Your task to perform on an android device: set default search engine in the chrome app Image 0: 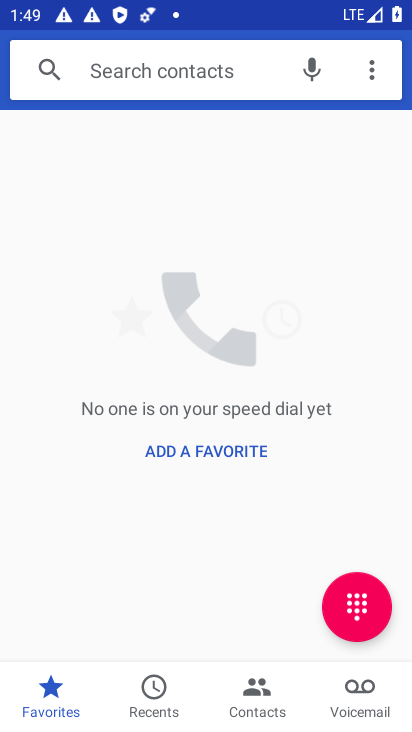
Step 0: press back button
Your task to perform on an android device: set default search engine in the chrome app Image 1: 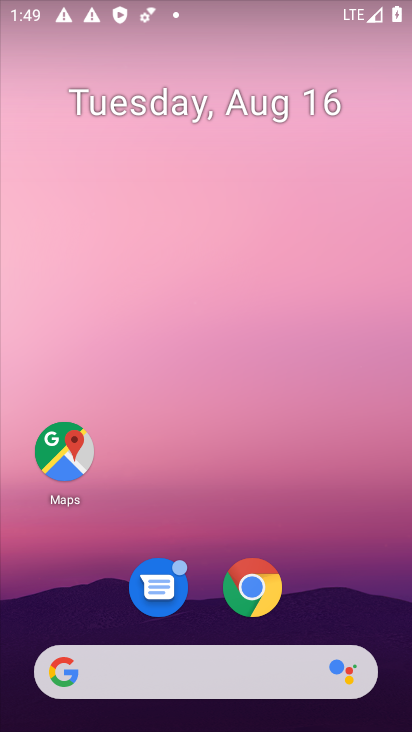
Step 1: click (250, 591)
Your task to perform on an android device: set default search engine in the chrome app Image 2: 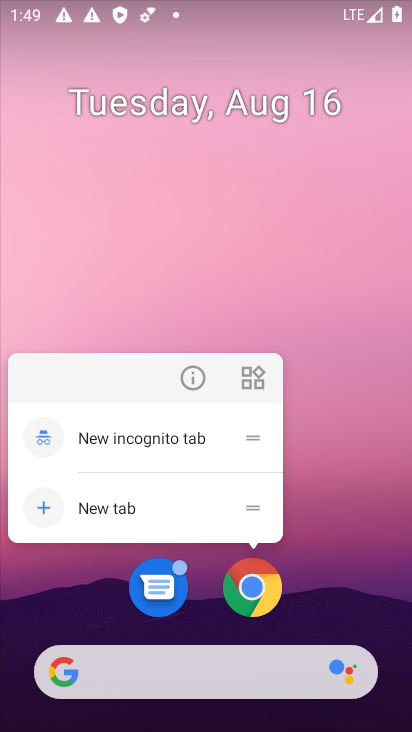
Step 2: click (253, 588)
Your task to perform on an android device: set default search engine in the chrome app Image 3: 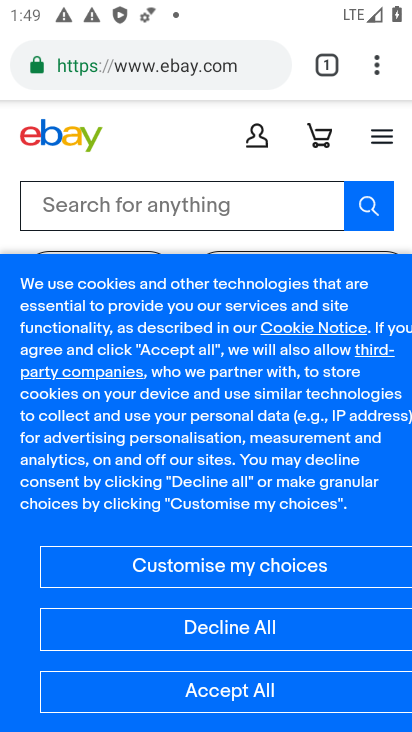
Step 3: drag from (372, 66) to (153, 635)
Your task to perform on an android device: set default search engine in the chrome app Image 4: 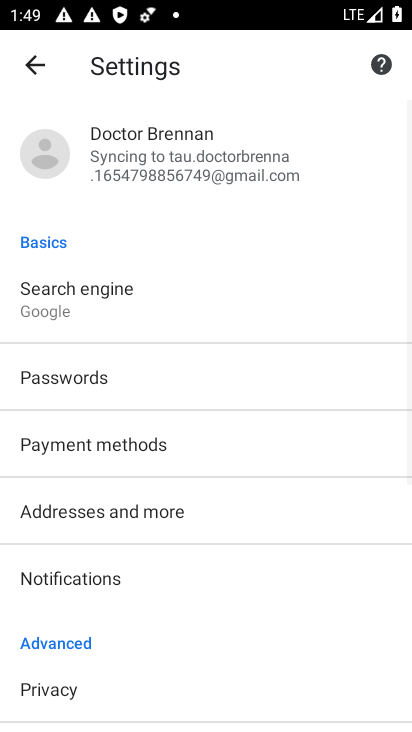
Step 4: click (83, 304)
Your task to perform on an android device: set default search engine in the chrome app Image 5: 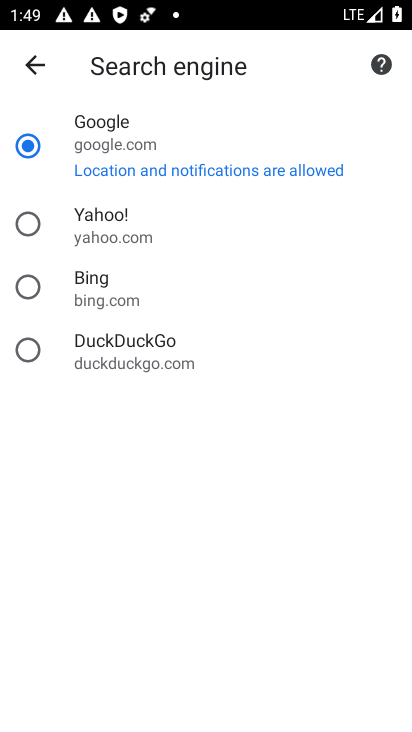
Step 5: click (37, 213)
Your task to perform on an android device: set default search engine in the chrome app Image 6: 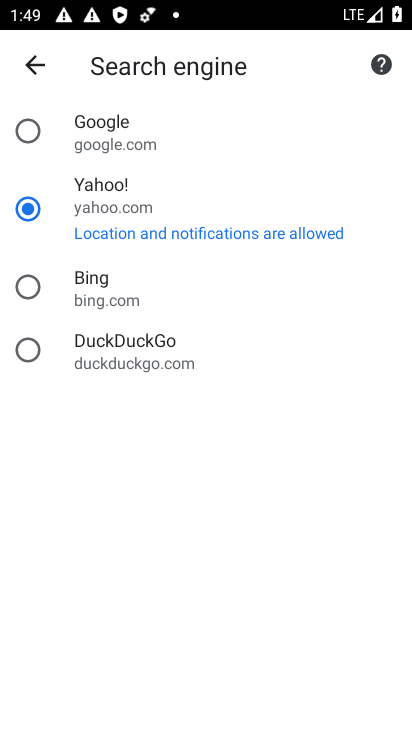
Step 6: task complete